Your task to perform on an android device: change the clock display to digital Image 0: 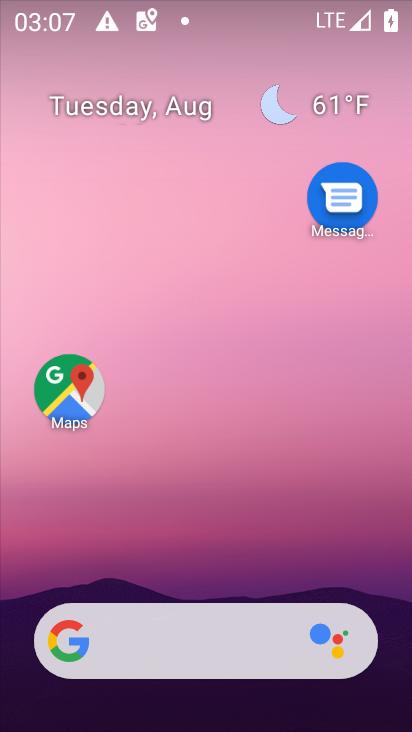
Step 0: drag from (218, 583) to (226, 185)
Your task to perform on an android device: change the clock display to digital Image 1: 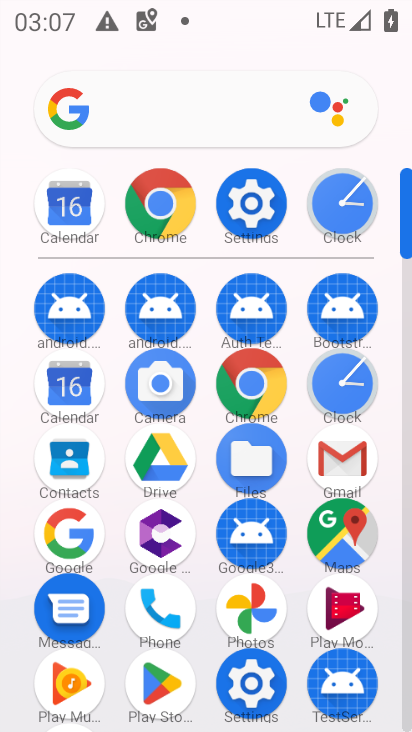
Step 1: click (332, 222)
Your task to perform on an android device: change the clock display to digital Image 2: 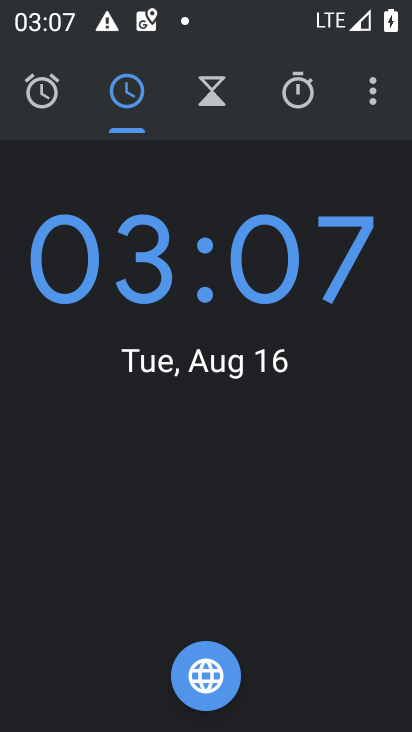
Step 2: click (365, 90)
Your task to perform on an android device: change the clock display to digital Image 3: 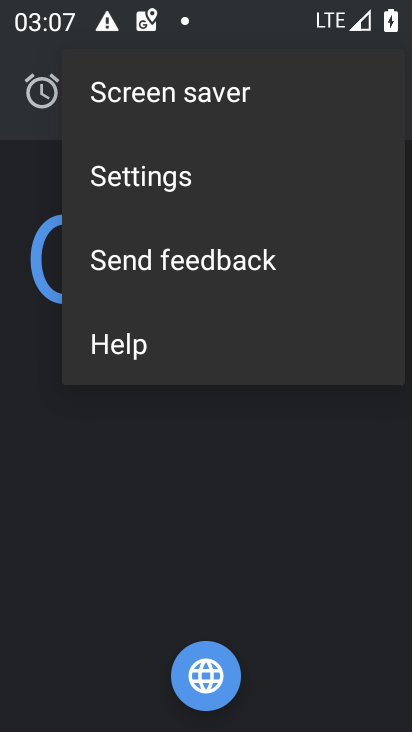
Step 3: click (154, 193)
Your task to perform on an android device: change the clock display to digital Image 4: 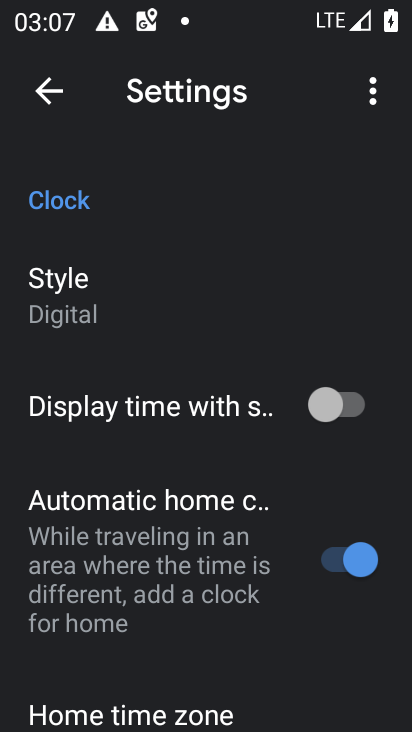
Step 4: task complete